Your task to perform on an android device: Open the stopwatch Image 0: 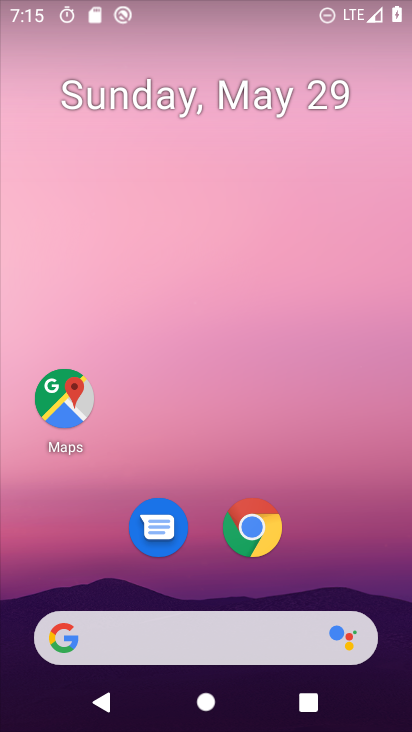
Step 0: drag from (409, 638) to (325, 60)
Your task to perform on an android device: Open the stopwatch Image 1: 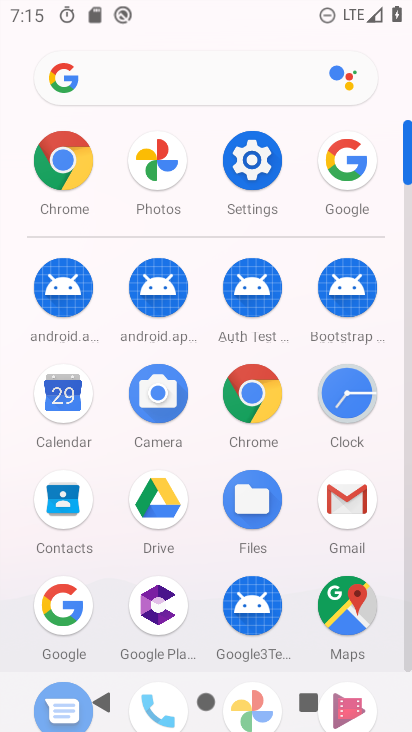
Step 1: click (367, 387)
Your task to perform on an android device: Open the stopwatch Image 2: 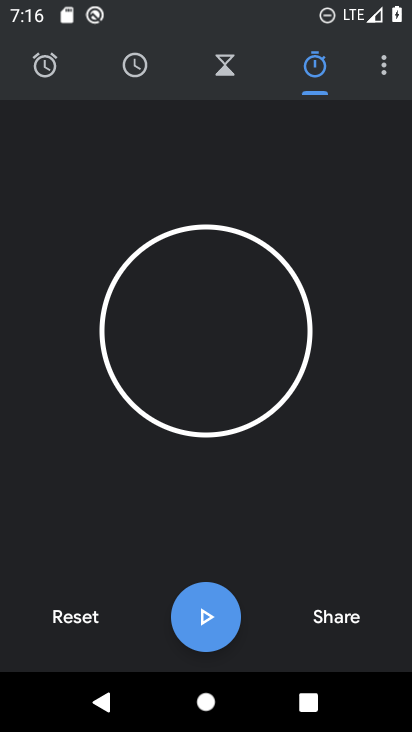
Step 2: task complete